Your task to perform on an android device: Go to privacy settings Image 0: 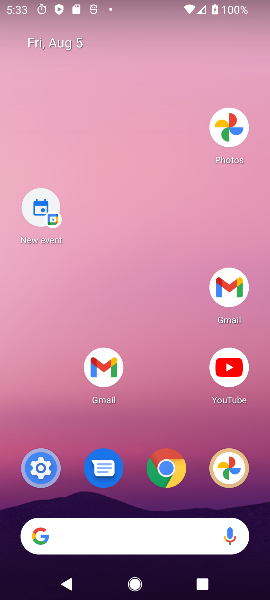
Step 0: drag from (148, 567) to (150, 285)
Your task to perform on an android device: Go to privacy settings Image 1: 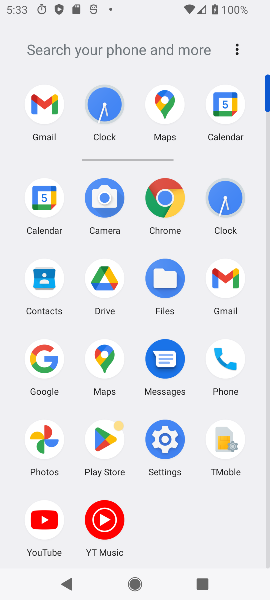
Step 1: click (160, 442)
Your task to perform on an android device: Go to privacy settings Image 2: 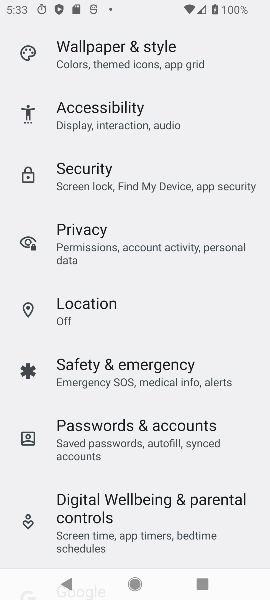
Step 2: click (79, 238)
Your task to perform on an android device: Go to privacy settings Image 3: 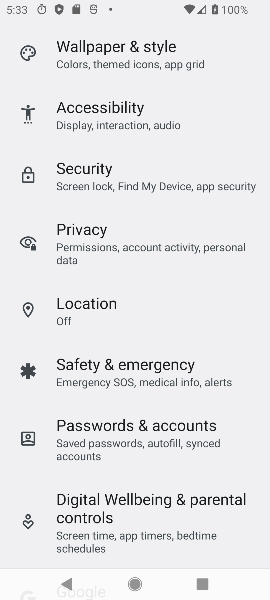
Step 3: click (79, 238)
Your task to perform on an android device: Go to privacy settings Image 4: 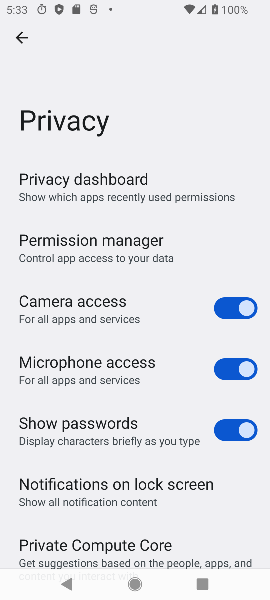
Step 4: task complete